Your task to perform on an android device: move a message to another label in the gmail app Image 0: 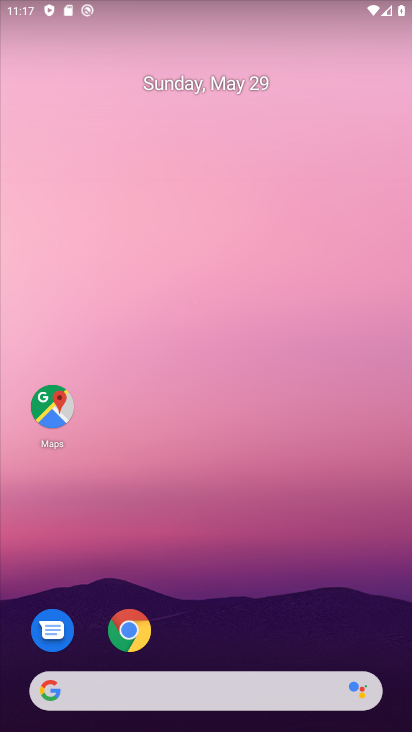
Step 0: drag from (118, 730) to (123, 22)
Your task to perform on an android device: move a message to another label in the gmail app Image 1: 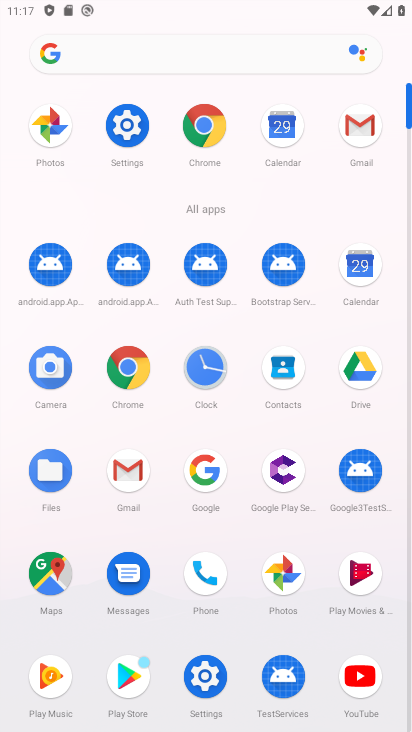
Step 1: click (126, 476)
Your task to perform on an android device: move a message to another label in the gmail app Image 2: 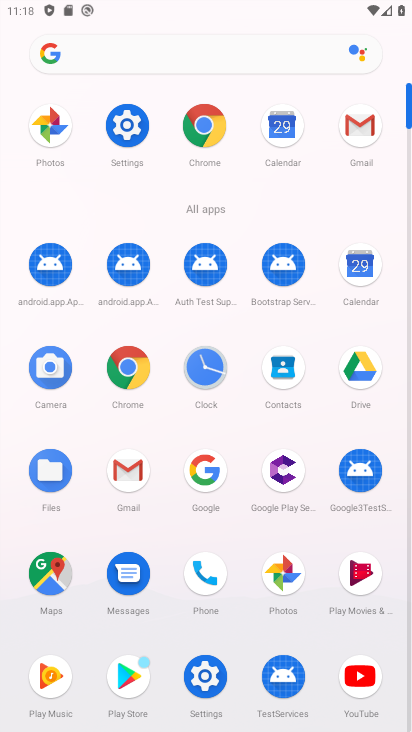
Step 2: click (123, 469)
Your task to perform on an android device: move a message to another label in the gmail app Image 3: 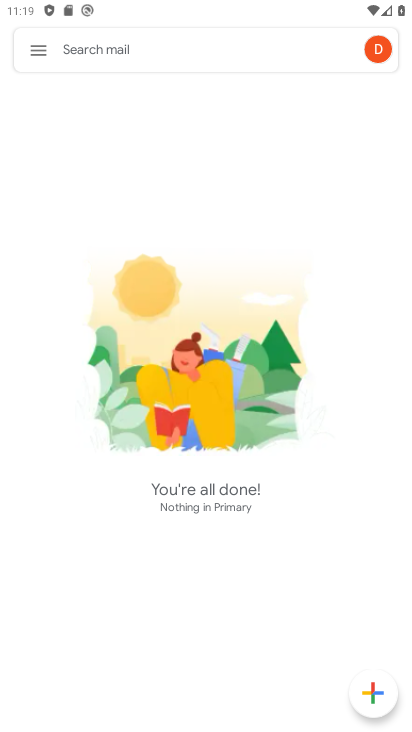
Step 3: click (39, 46)
Your task to perform on an android device: move a message to another label in the gmail app Image 4: 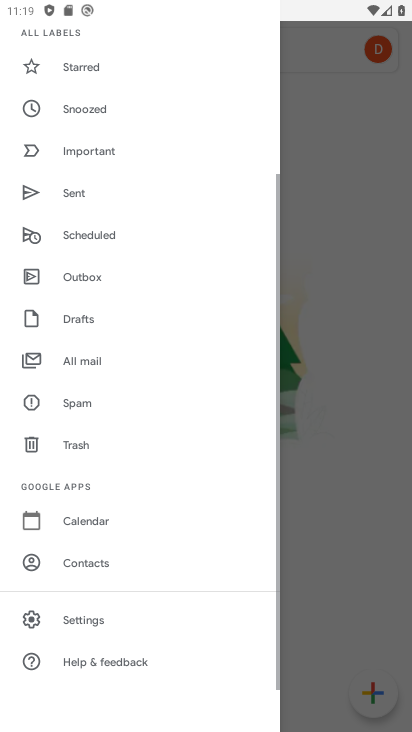
Step 4: drag from (119, 165) to (177, 722)
Your task to perform on an android device: move a message to another label in the gmail app Image 5: 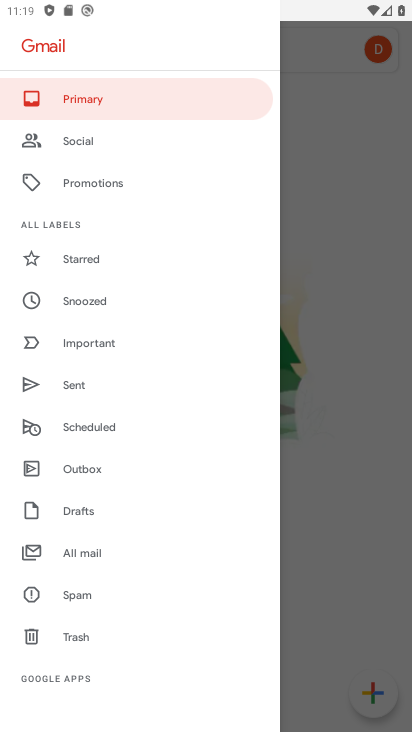
Step 5: click (96, 552)
Your task to perform on an android device: move a message to another label in the gmail app Image 6: 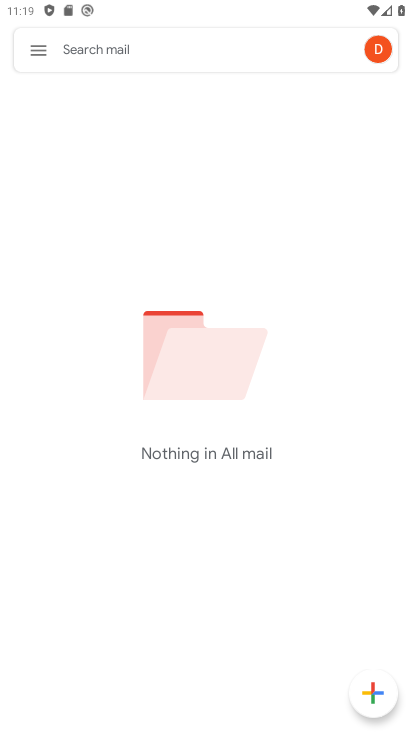
Step 6: task complete